Your task to perform on an android device: Open maps Image 0: 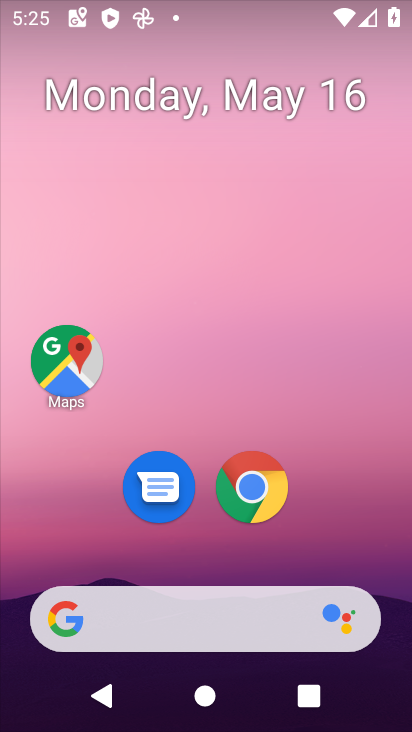
Step 0: click (68, 356)
Your task to perform on an android device: Open maps Image 1: 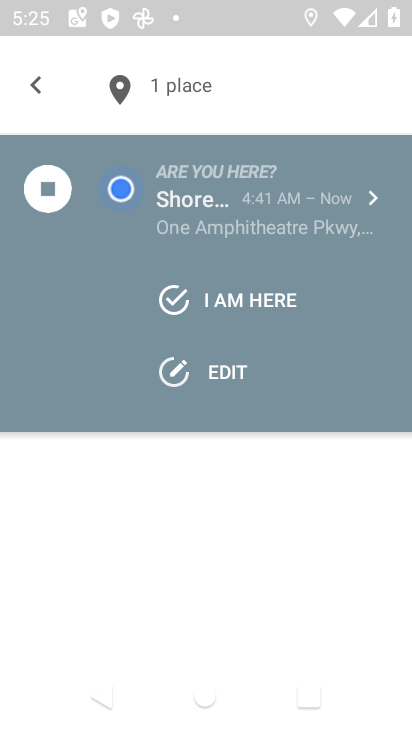
Step 1: task complete